Your task to perform on an android device: Turn off the flashlight Image 0: 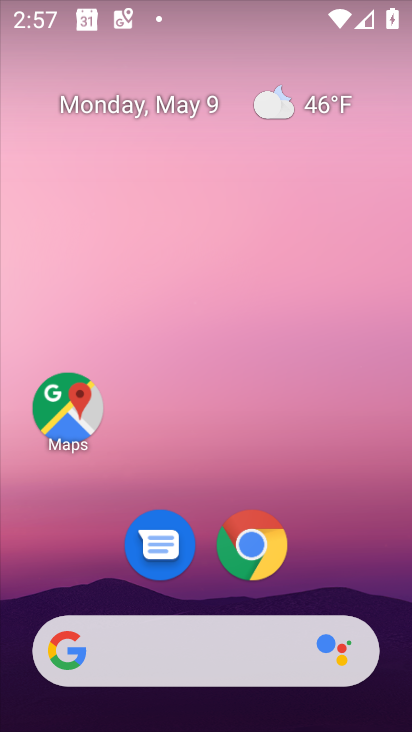
Step 0: drag from (205, 585) to (211, 238)
Your task to perform on an android device: Turn off the flashlight Image 1: 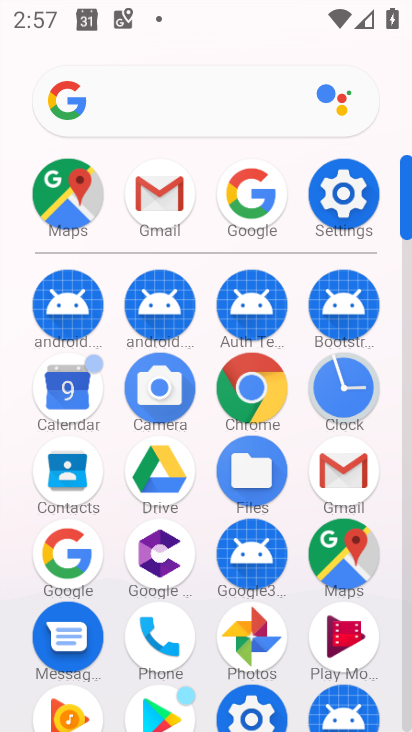
Step 1: click (338, 192)
Your task to perform on an android device: Turn off the flashlight Image 2: 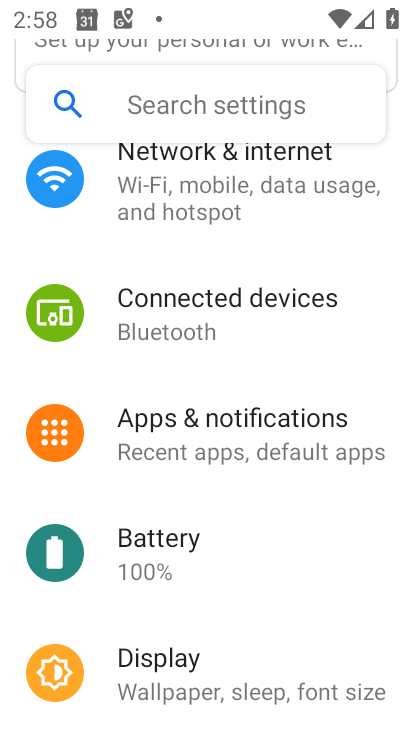
Step 2: task complete